Your task to perform on an android device: toggle sleep mode Image 0: 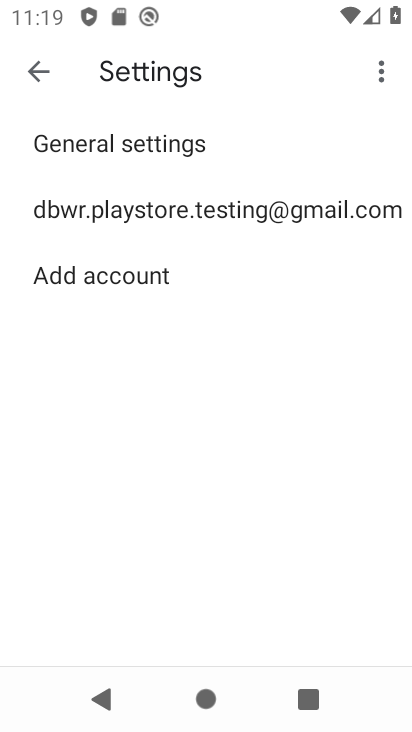
Step 0: press home button
Your task to perform on an android device: toggle sleep mode Image 1: 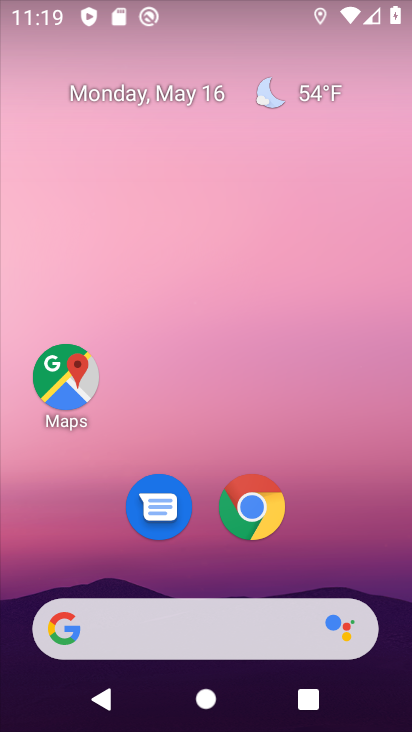
Step 1: drag from (380, 563) to (334, 48)
Your task to perform on an android device: toggle sleep mode Image 2: 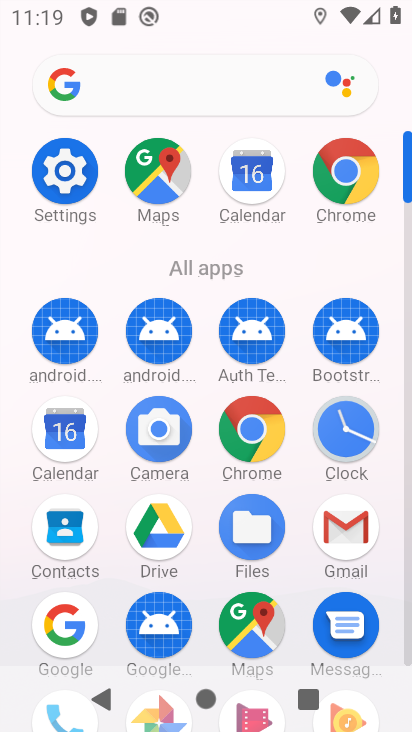
Step 2: click (66, 199)
Your task to perform on an android device: toggle sleep mode Image 3: 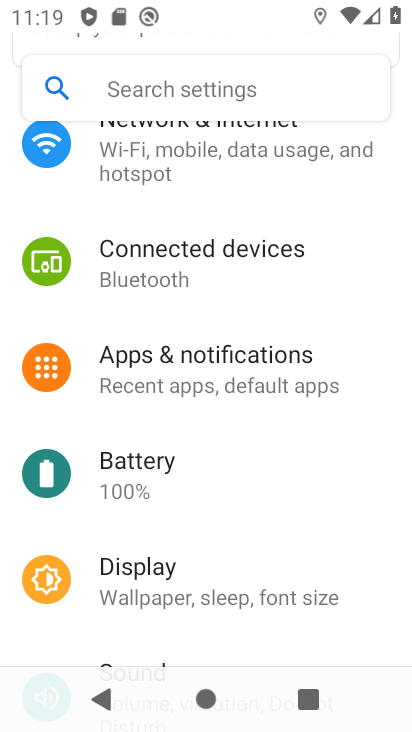
Step 3: click (267, 604)
Your task to perform on an android device: toggle sleep mode Image 4: 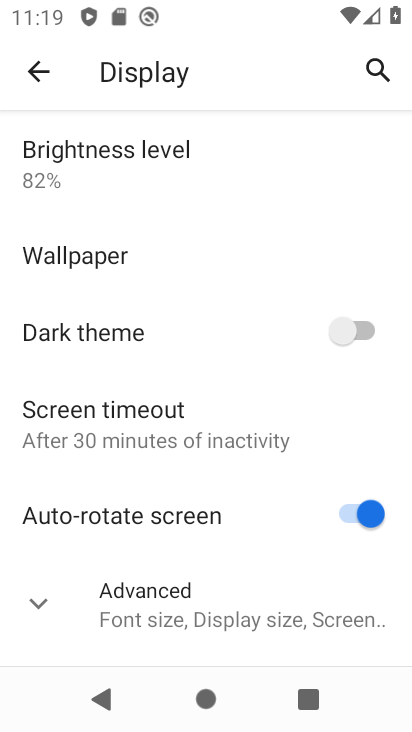
Step 4: click (267, 604)
Your task to perform on an android device: toggle sleep mode Image 5: 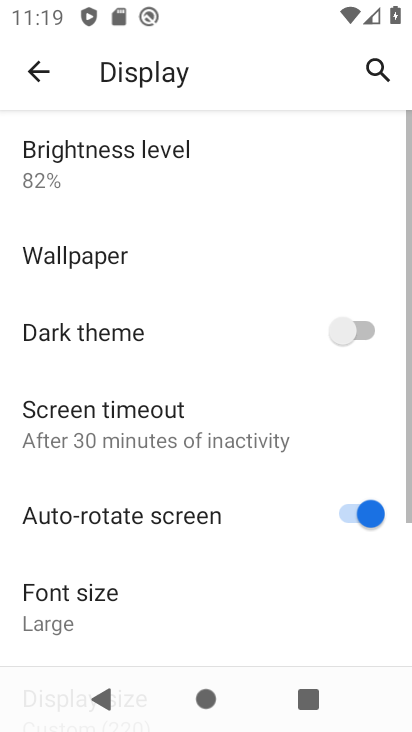
Step 5: task complete